Your task to perform on an android device: delete the emails in spam in the gmail app Image 0: 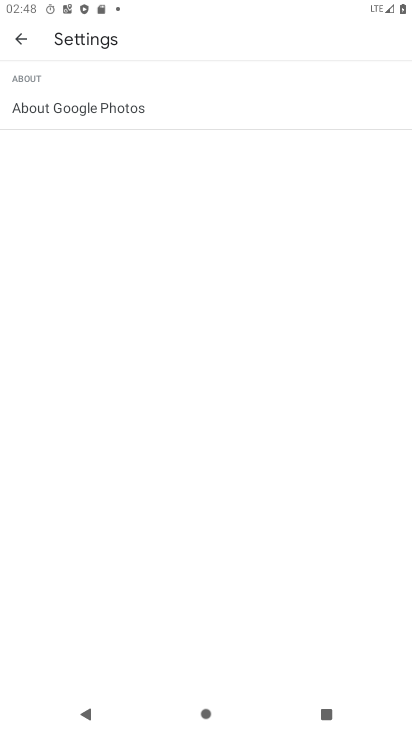
Step 0: press home button
Your task to perform on an android device: delete the emails in spam in the gmail app Image 1: 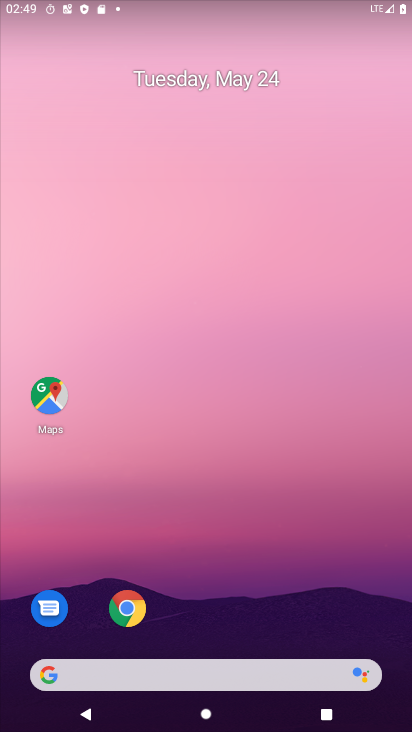
Step 1: drag from (227, 637) to (186, 105)
Your task to perform on an android device: delete the emails in spam in the gmail app Image 2: 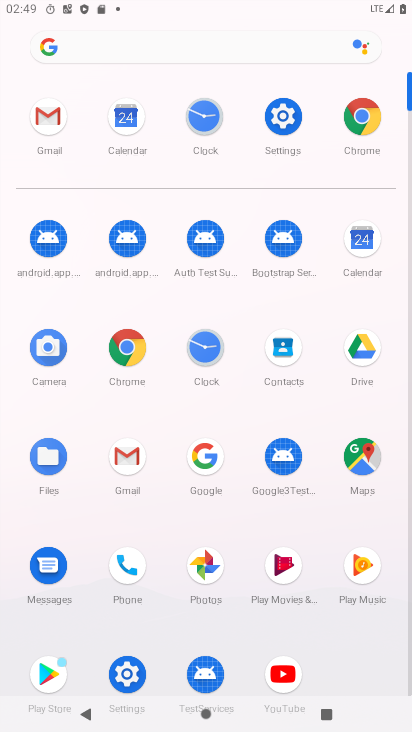
Step 2: click (47, 127)
Your task to perform on an android device: delete the emails in spam in the gmail app Image 3: 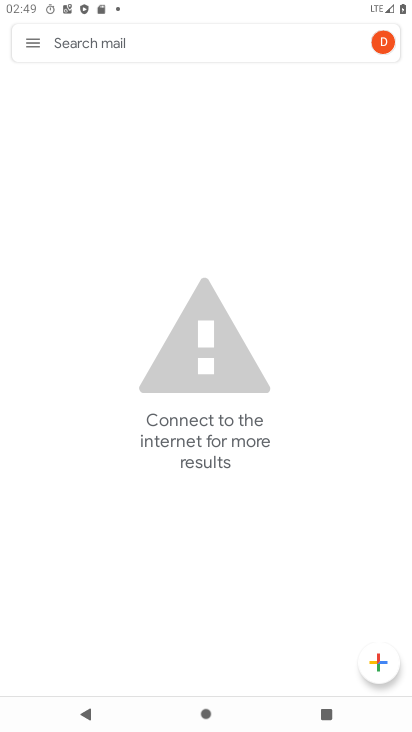
Step 3: click (25, 49)
Your task to perform on an android device: delete the emails in spam in the gmail app Image 4: 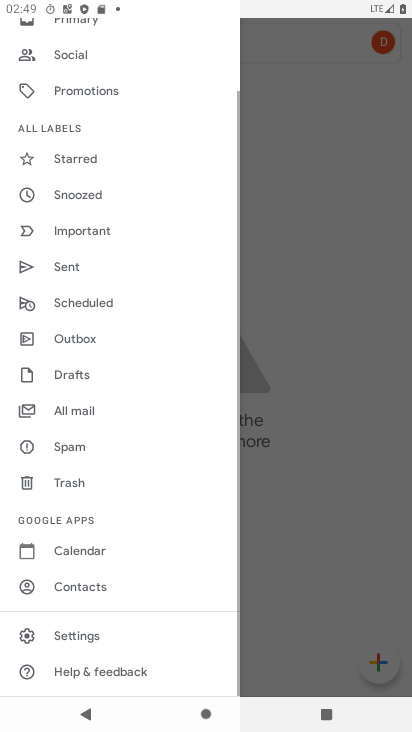
Step 4: click (29, 45)
Your task to perform on an android device: delete the emails in spam in the gmail app Image 5: 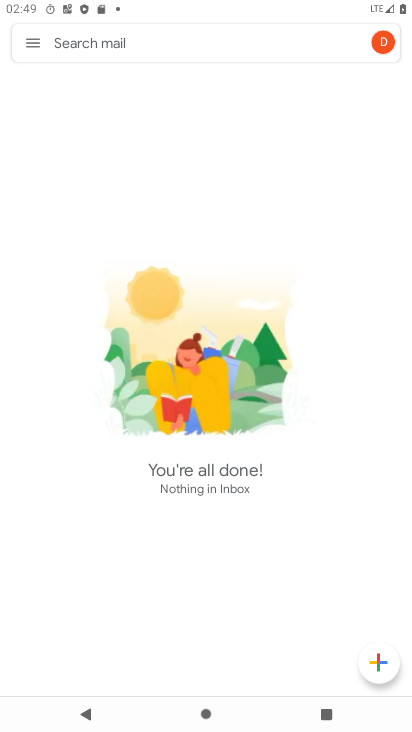
Step 5: click (28, 50)
Your task to perform on an android device: delete the emails in spam in the gmail app Image 6: 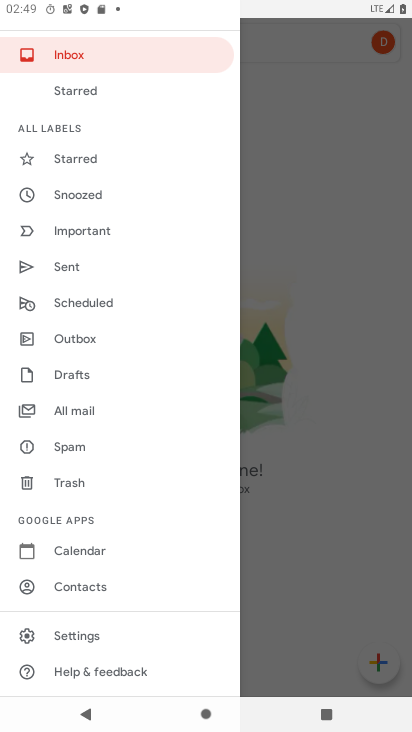
Step 6: click (106, 448)
Your task to perform on an android device: delete the emails in spam in the gmail app Image 7: 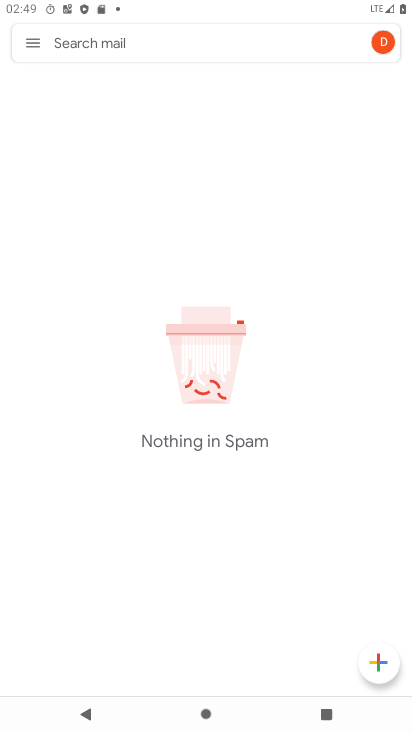
Step 7: task complete